Your task to perform on an android device: Open the map Image 0: 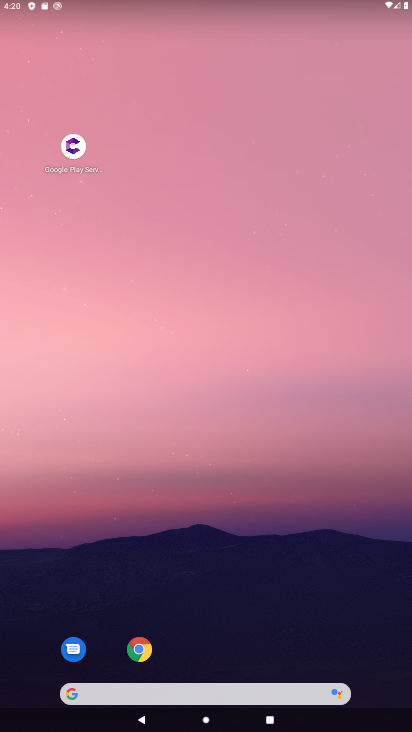
Step 0: drag from (26, 490) to (377, 493)
Your task to perform on an android device: Open the map Image 1: 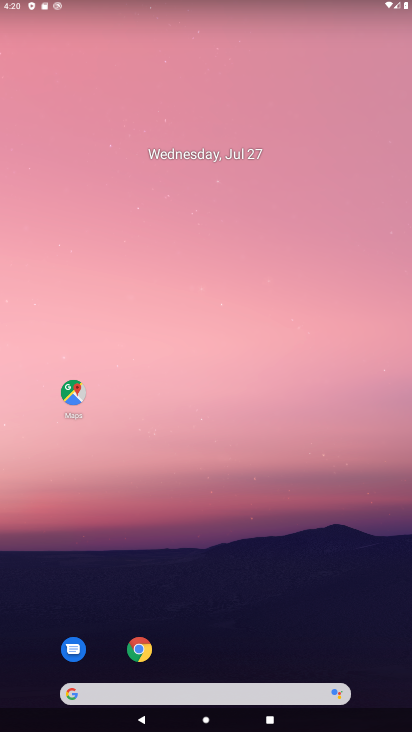
Step 1: click (68, 393)
Your task to perform on an android device: Open the map Image 2: 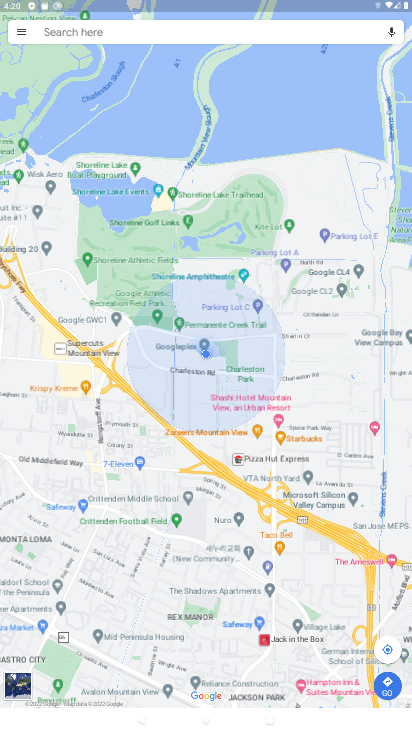
Step 2: task complete